Your task to perform on an android device: Open internet settings Image 0: 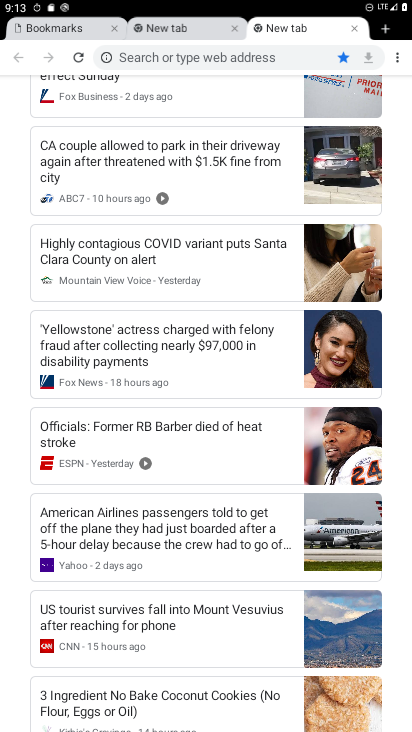
Step 0: press home button
Your task to perform on an android device: Open internet settings Image 1: 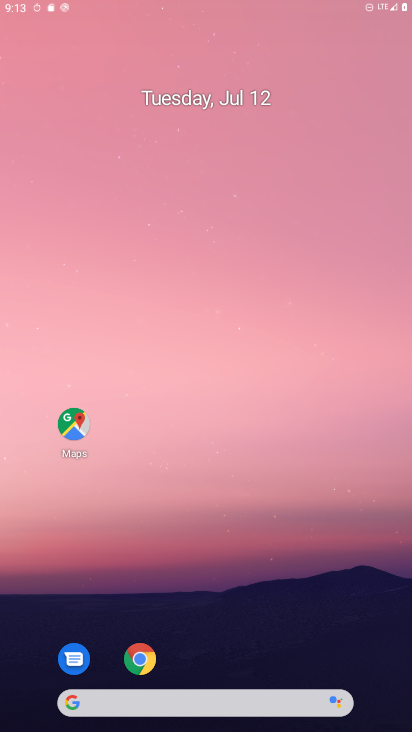
Step 1: drag from (388, 692) to (310, 44)
Your task to perform on an android device: Open internet settings Image 2: 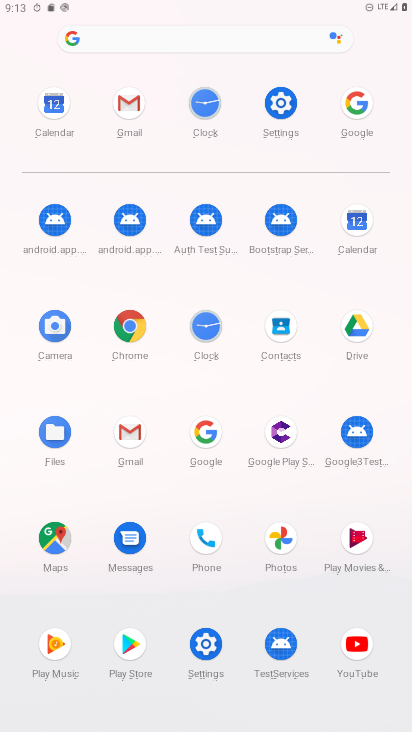
Step 2: click (204, 644)
Your task to perform on an android device: Open internet settings Image 3: 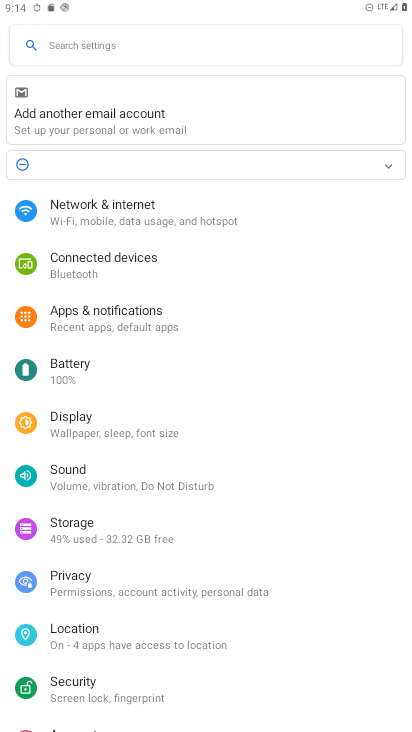
Step 3: click (186, 212)
Your task to perform on an android device: Open internet settings Image 4: 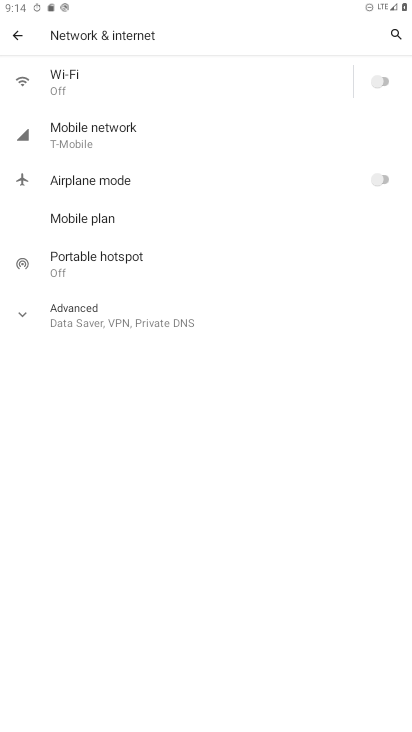
Step 4: task complete